Your task to perform on an android device: uninstall "Paramount+ | Peak Streaming" Image 0: 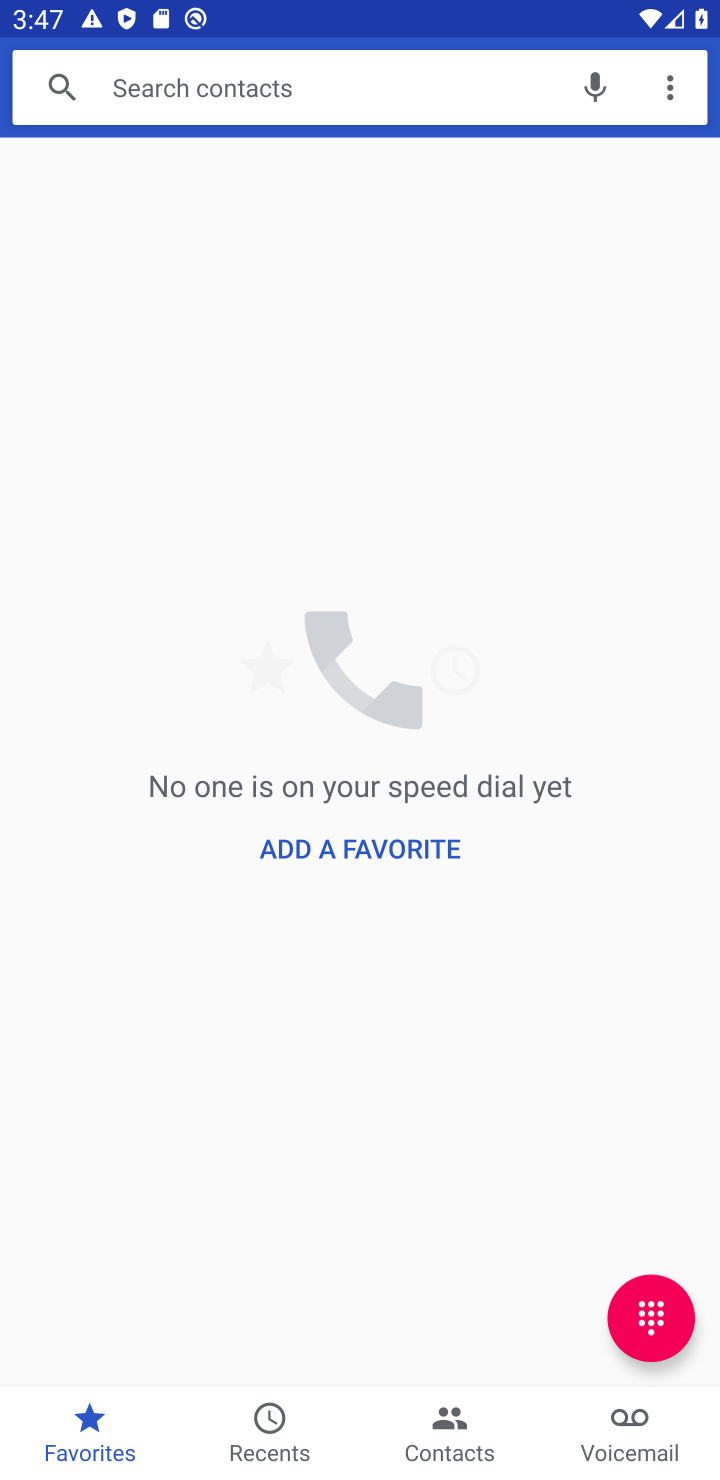
Step 0: press home button
Your task to perform on an android device: uninstall "Paramount+ | Peak Streaming" Image 1: 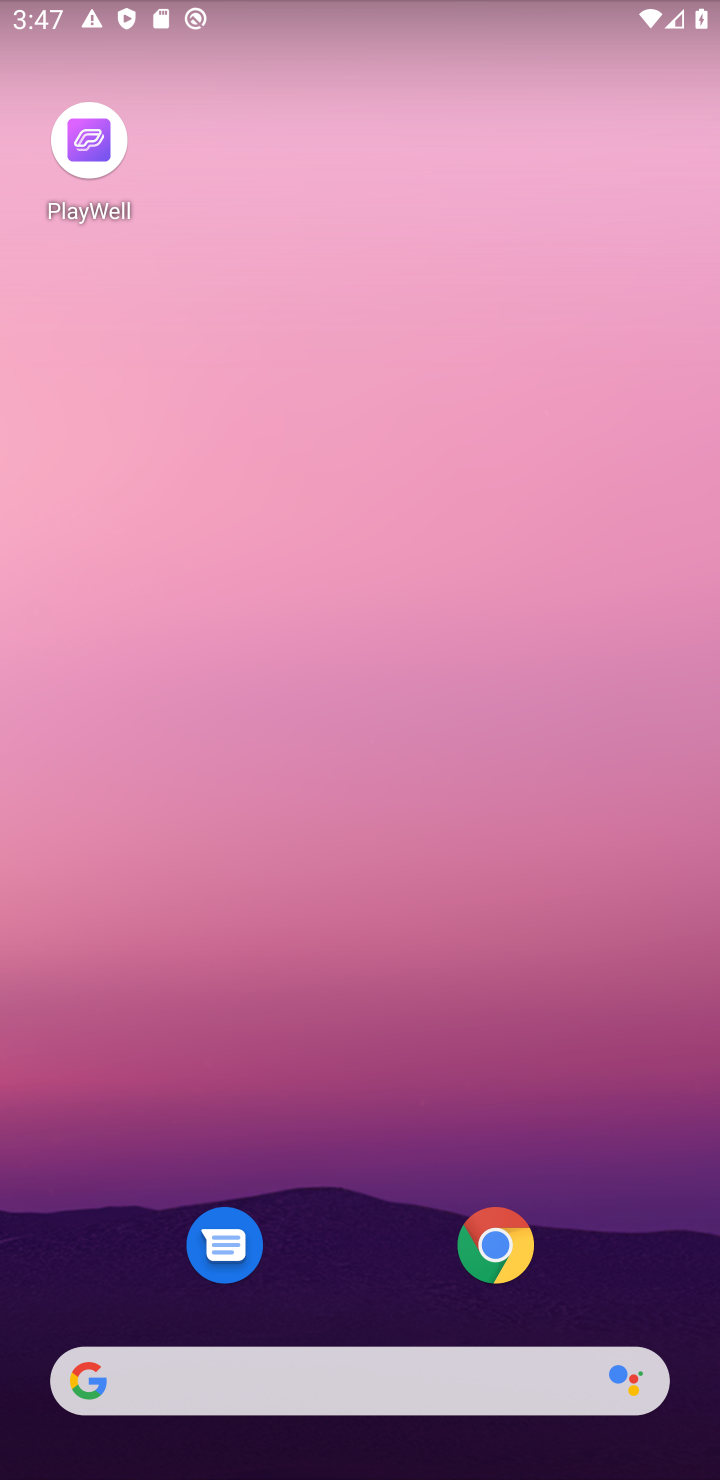
Step 1: drag from (358, 1061) to (312, 12)
Your task to perform on an android device: uninstall "Paramount+ | Peak Streaming" Image 2: 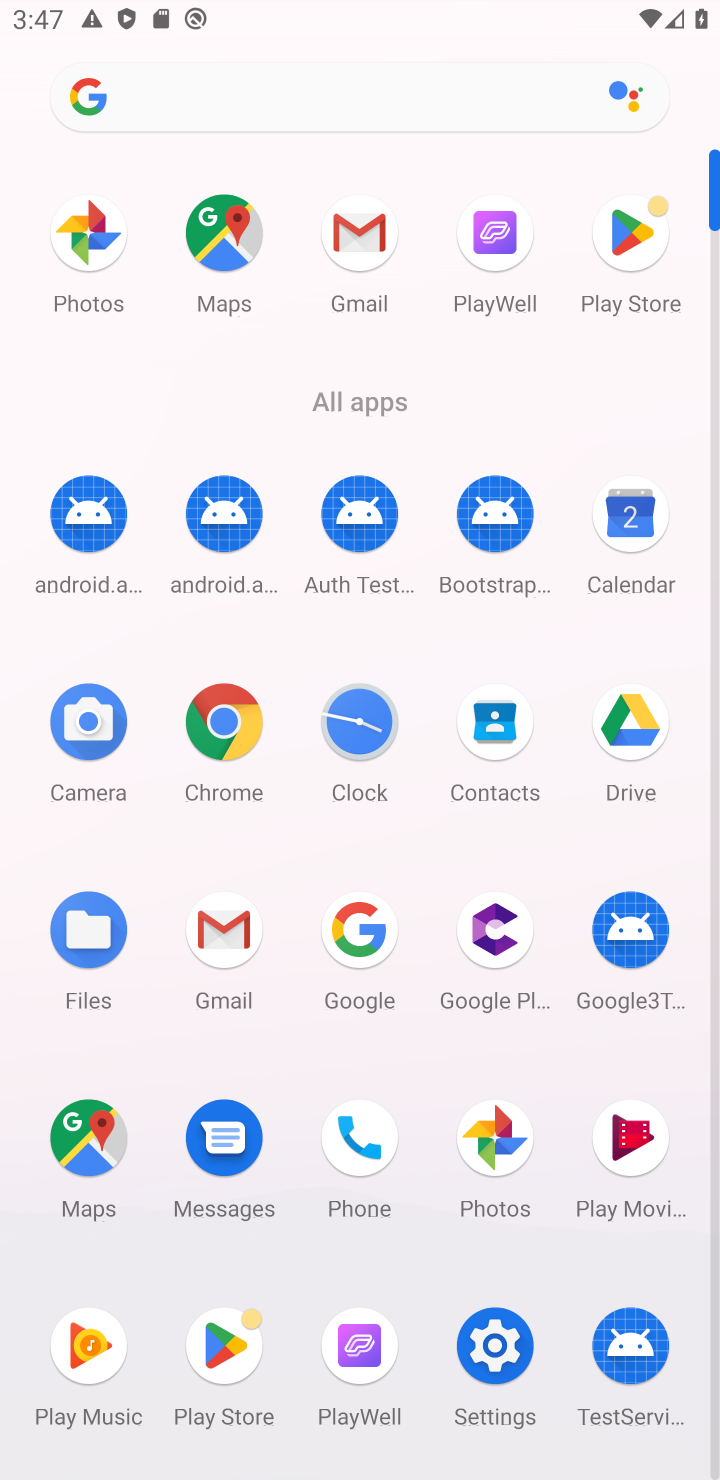
Step 2: click (619, 258)
Your task to perform on an android device: uninstall "Paramount+ | Peak Streaming" Image 3: 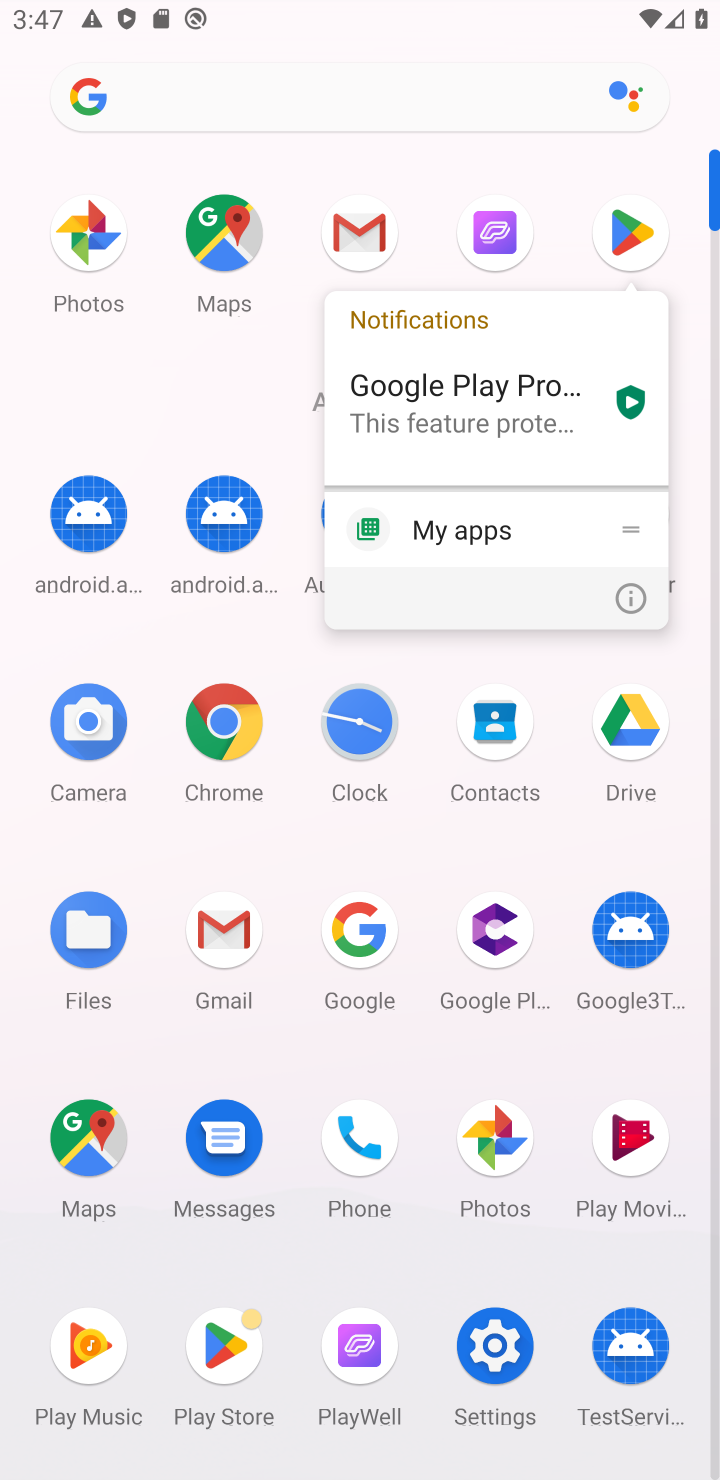
Step 3: click (624, 237)
Your task to perform on an android device: uninstall "Paramount+ | Peak Streaming" Image 4: 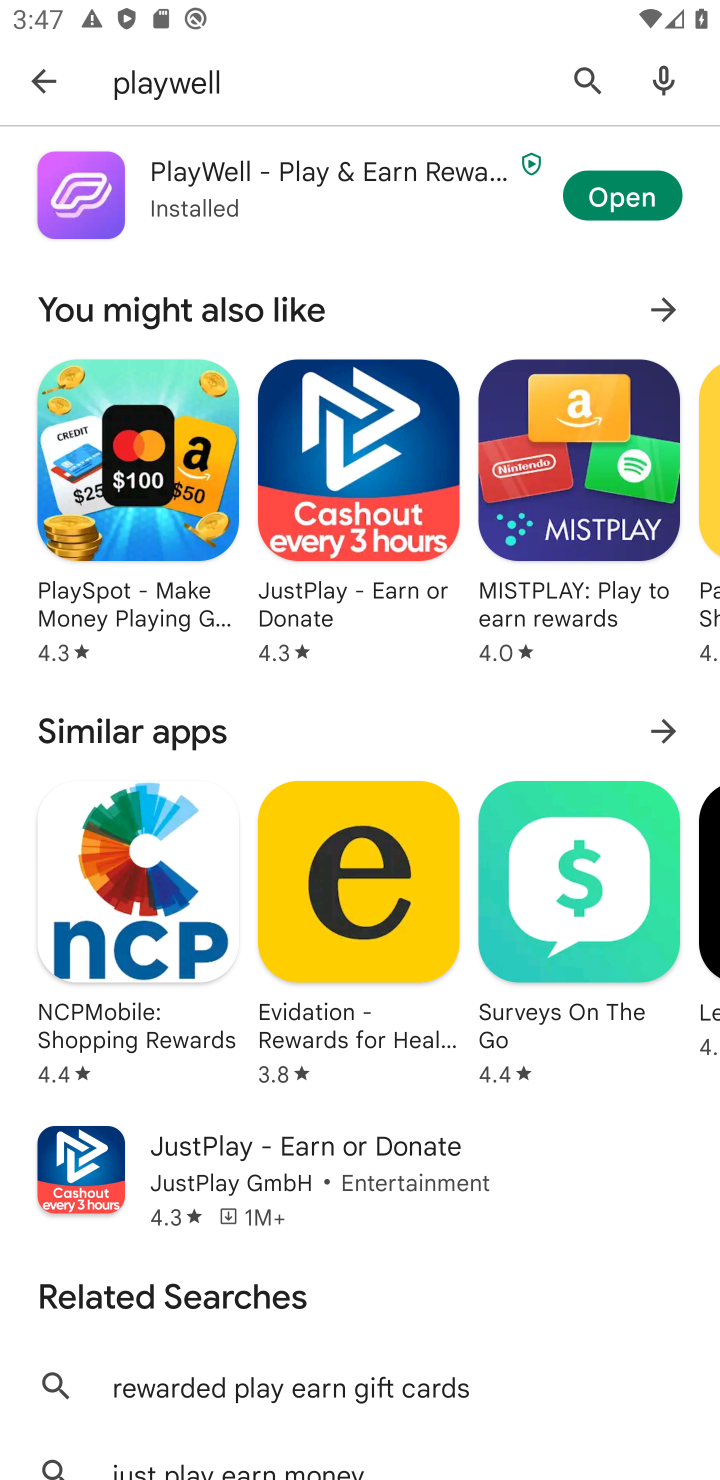
Step 4: click (587, 66)
Your task to perform on an android device: uninstall "Paramount+ | Peak Streaming" Image 5: 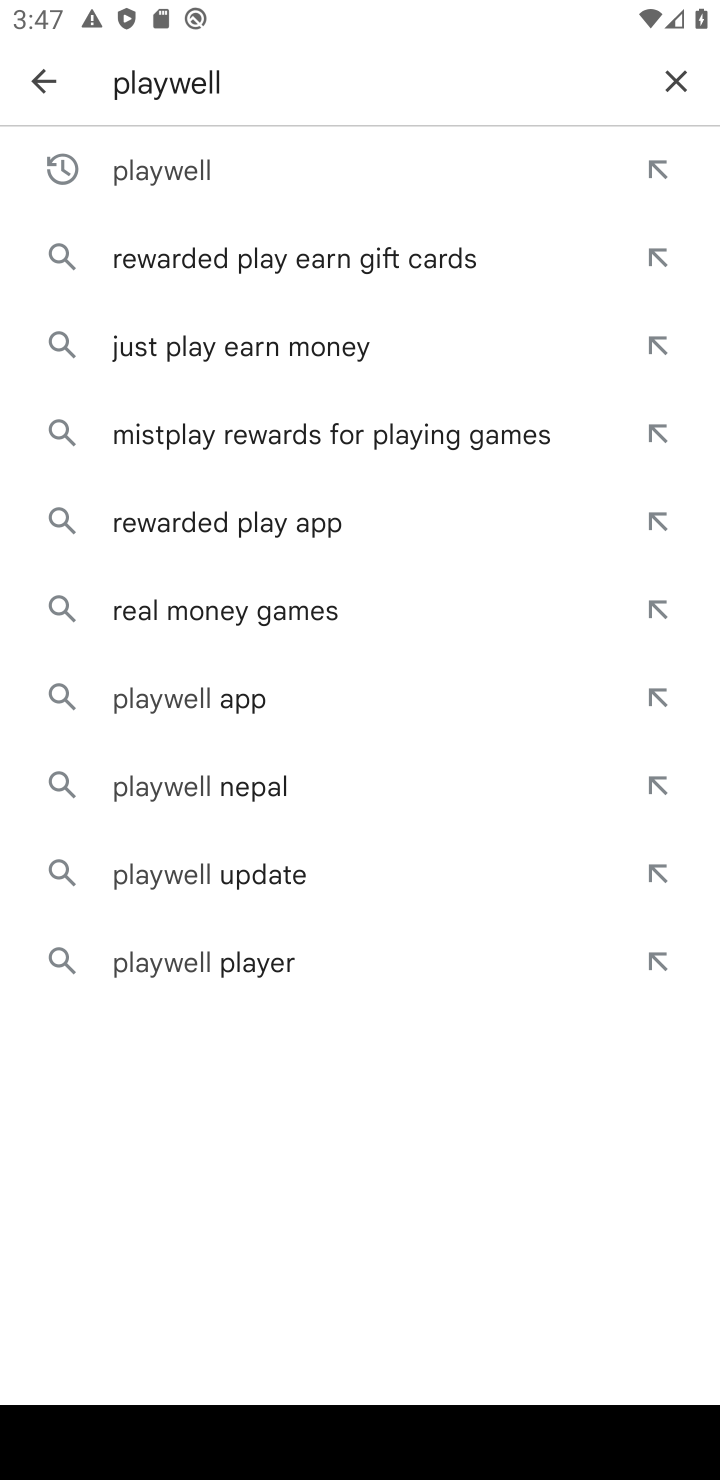
Step 5: click (677, 81)
Your task to perform on an android device: uninstall "Paramount+ | Peak Streaming" Image 6: 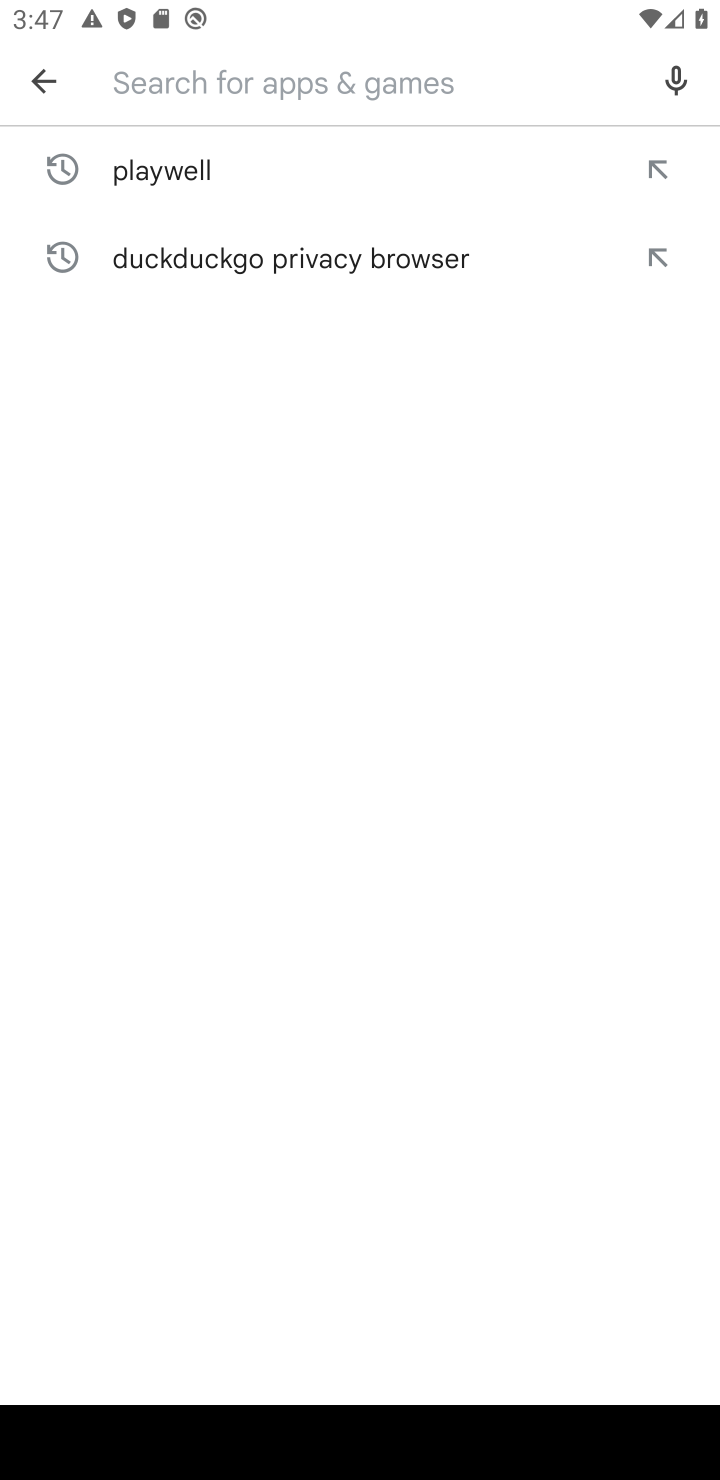
Step 6: type "Paramount+ | Peak Streaming"
Your task to perform on an android device: uninstall "Paramount+ | Peak Streaming" Image 7: 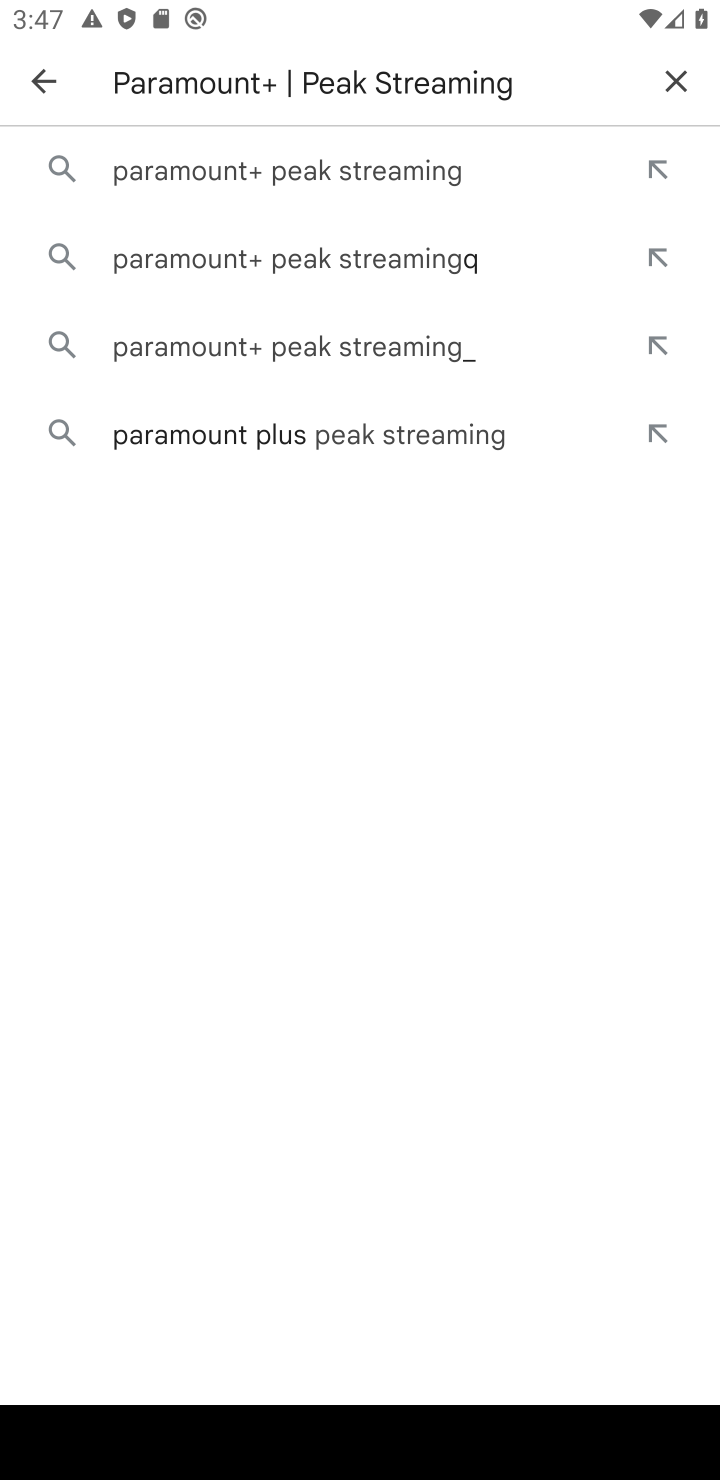
Step 7: click (156, 181)
Your task to perform on an android device: uninstall "Paramount+ | Peak Streaming" Image 8: 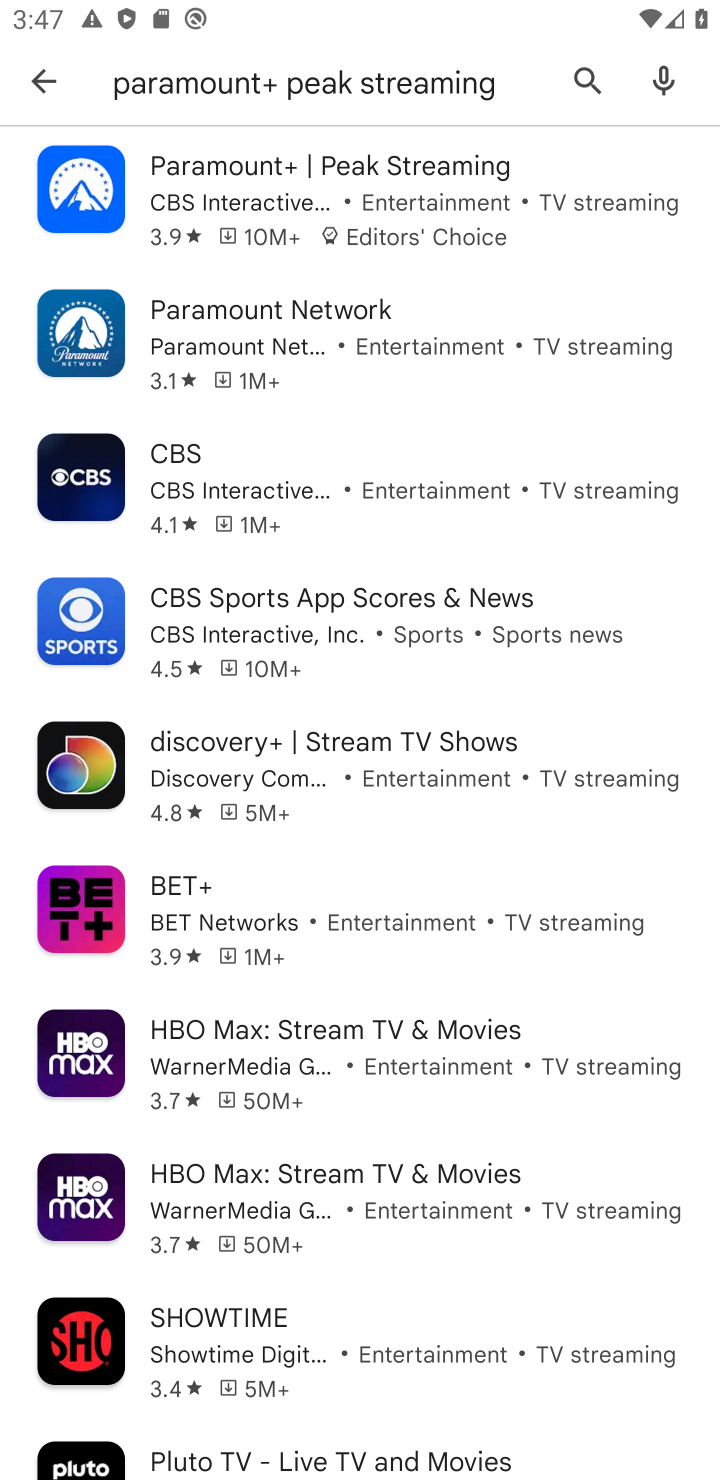
Step 8: click (249, 196)
Your task to perform on an android device: uninstall "Paramount+ | Peak Streaming" Image 9: 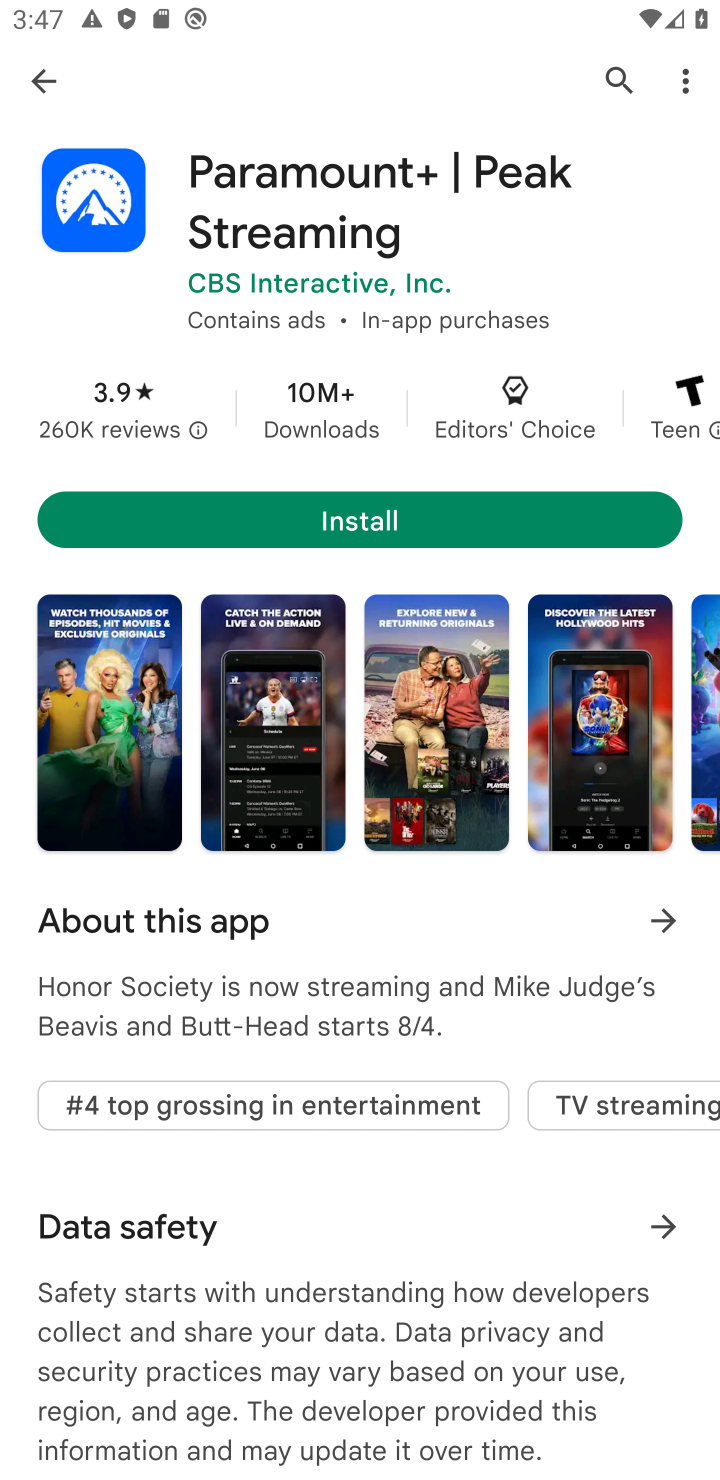
Step 9: task complete